Your task to perform on an android device: stop showing notifications on the lock screen Image 0: 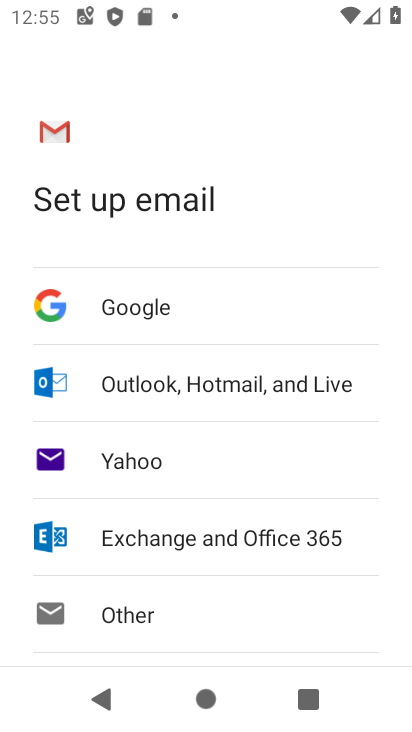
Step 0: press home button
Your task to perform on an android device: stop showing notifications on the lock screen Image 1: 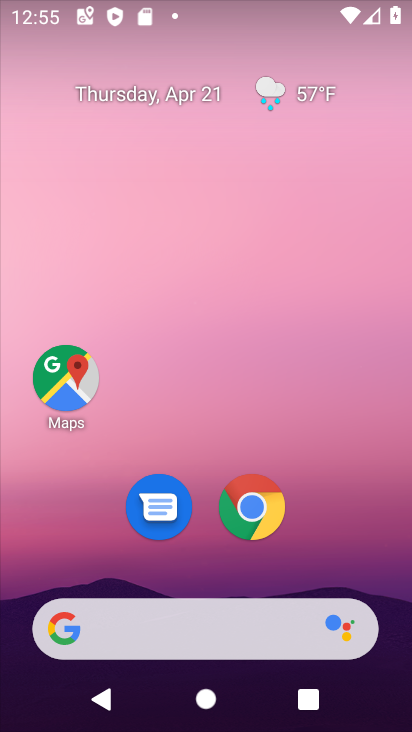
Step 1: drag from (209, 457) to (270, 8)
Your task to perform on an android device: stop showing notifications on the lock screen Image 2: 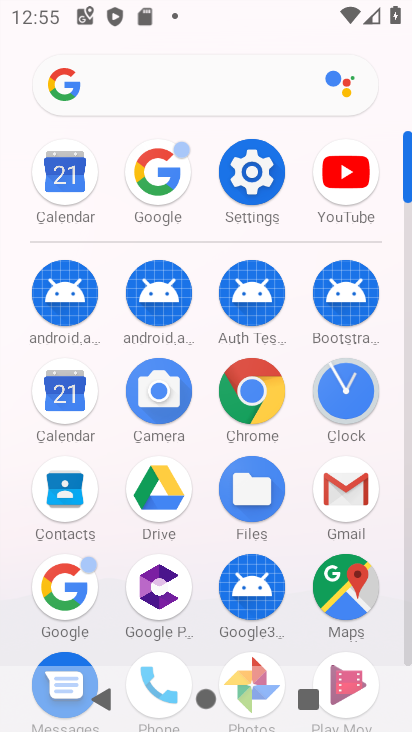
Step 2: click (252, 171)
Your task to perform on an android device: stop showing notifications on the lock screen Image 3: 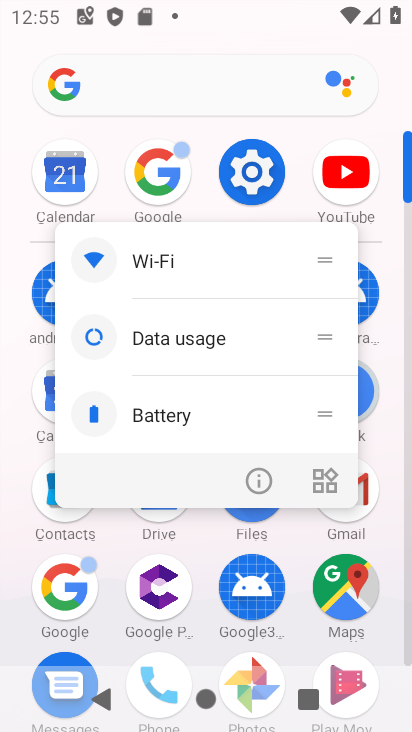
Step 3: click (252, 171)
Your task to perform on an android device: stop showing notifications on the lock screen Image 4: 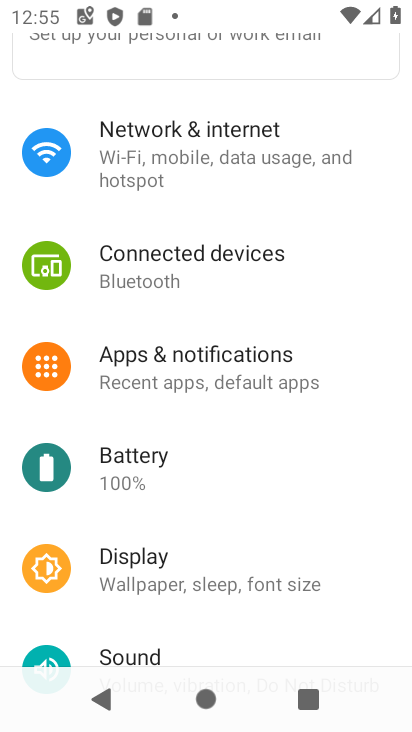
Step 4: click (182, 358)
Your task to perform on an android device: stop showing notifications on the lock screen Image 5: 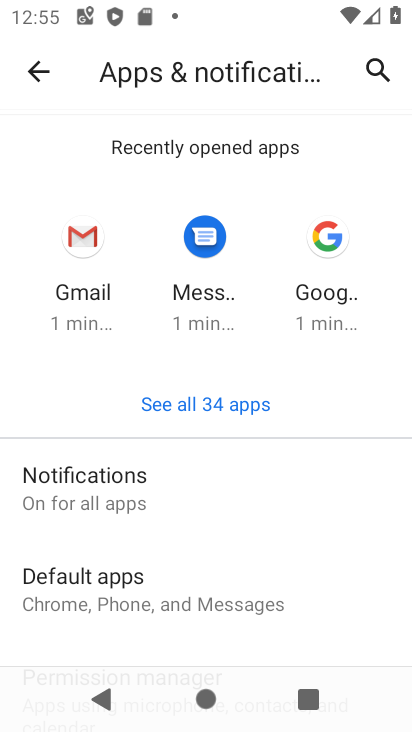
Step 5: click (80, 474)
Your task to perform on an android device: stop showing notifications on the lock screen Image 6: 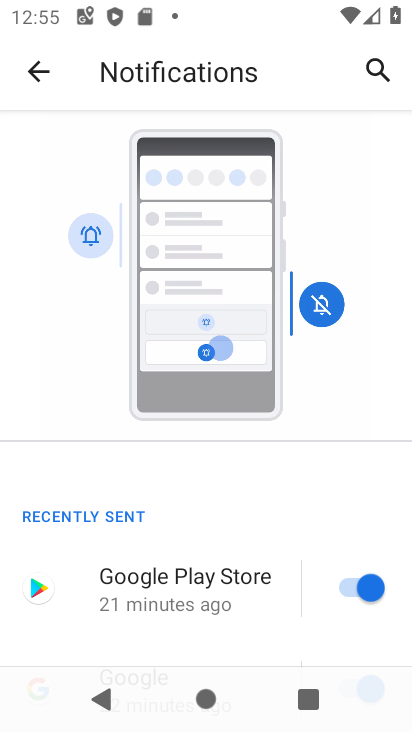
Step 6: drag from (209, 507) to (277, 311)
Your task to perform on an android device: stop showing notifications on the lock screen Image 7: 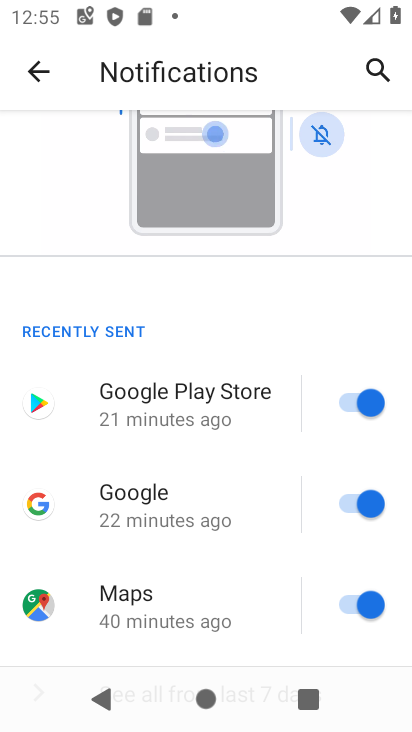
Step 7: drag from (208, 491) to (276, 316)
Your task to perform on an android device: stop showing notifications on the lock screen Image 8: 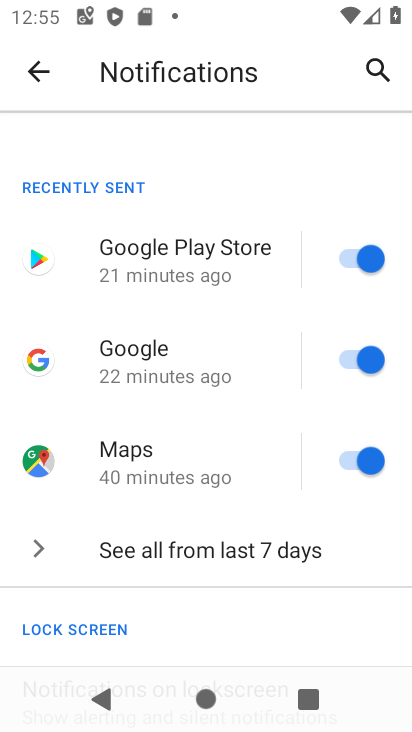
Step 8: drag from (199, 453) to (247, 309)
Your task to perform on an android device: stop showing notifications on the lock screen Image 9: 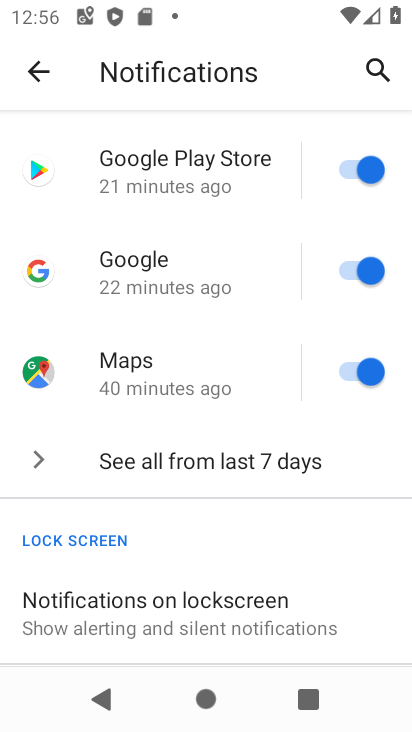
Step 9: drag from (182, 550) to (250, 407)
Your task to perform on an android device: stop showing notifications on the lock screen Image 10: 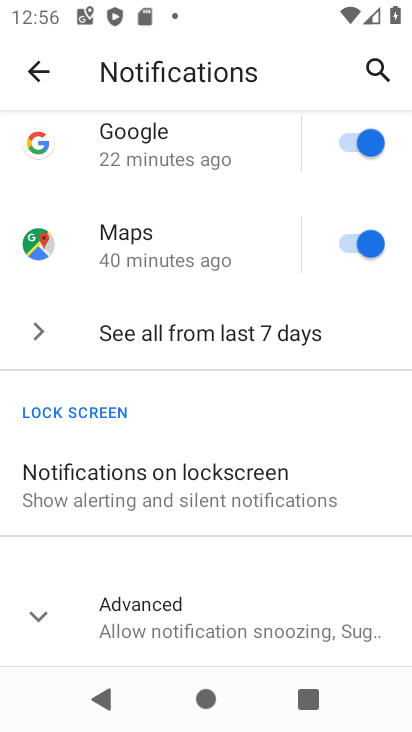
Step 10: click (217, 472)
Your task to perform on an android device: stop showing notifications on the lock screen Image 11: 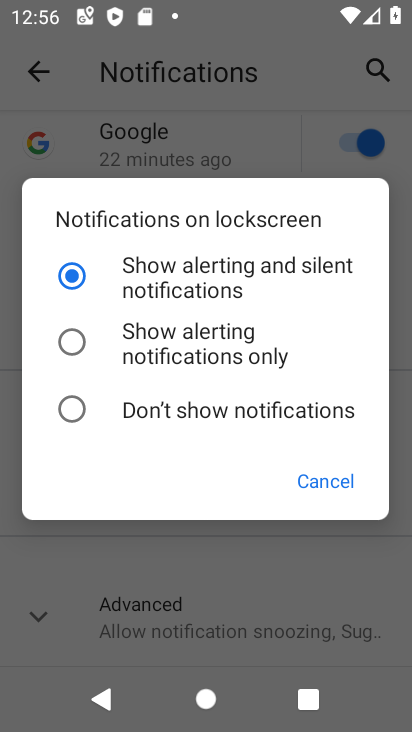
Step 11: click (72, 409)
Your task to perform on an android device: stop showing notifications on the lock screen Image 12: 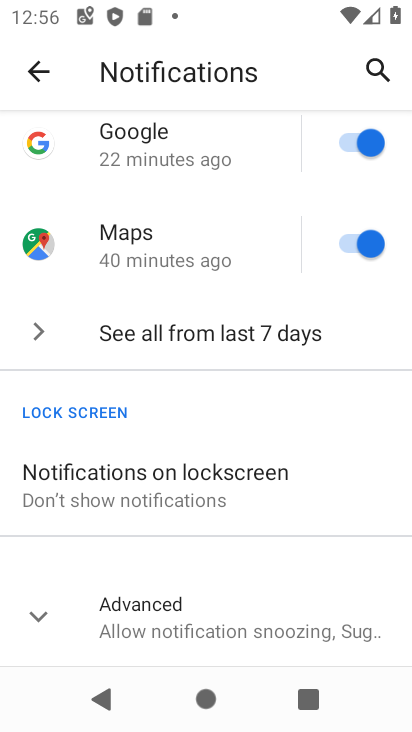
Step 12: task complete